Your task to perform on an android device: Open Youtube and go to the subscriptions tab Image 0: 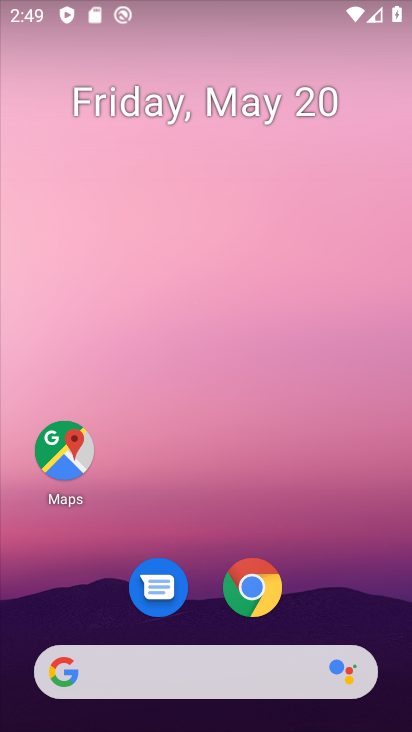
Step 0: drag from (347, 599) to (276, 159)
Your task to perform on an android device: Open Youtube and go to the subscriptions tab Image 1: 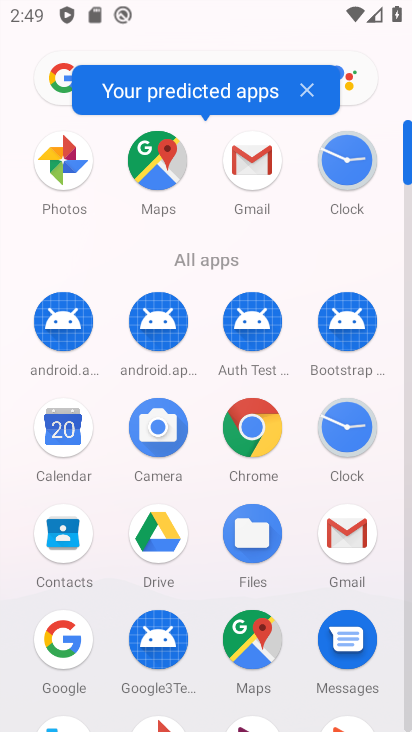
Step 1: click (408, 661)
Your task to perform on an android device: Open Youtube and go to the subscriptions tab Image 2: 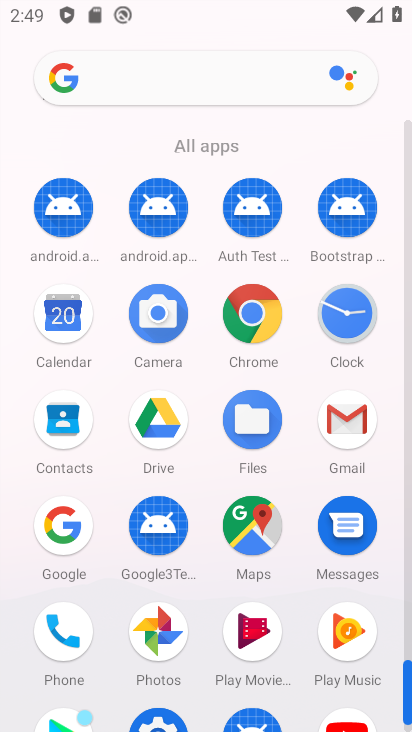
Step 2: click (356, 716)
Your task to perform on an android device: Open Youtube and go to the subscriptions tab Image 3: 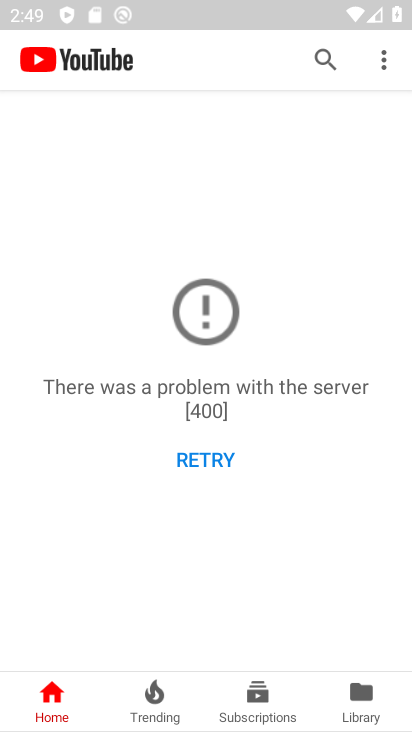
Step 3: click (255, 687)
Your task to perform on an android device: Open Youtube and go to the subscriptions tab Image 4: 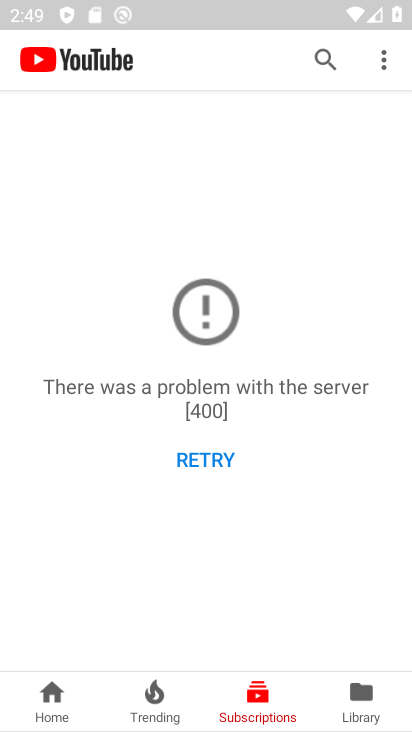
Step 4: task complete